Your task to perform on an android device: toggle notifications settings in the gmail app Image 0: 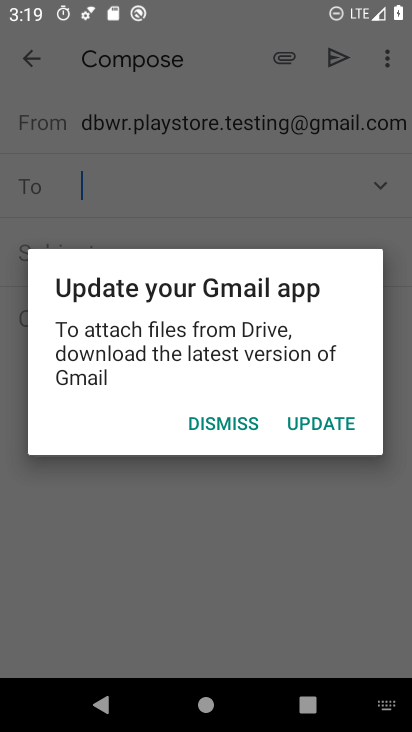
Step 0: press home button
Your task to perform on an android device: toggle notifications settings in the gmail app Image 1: 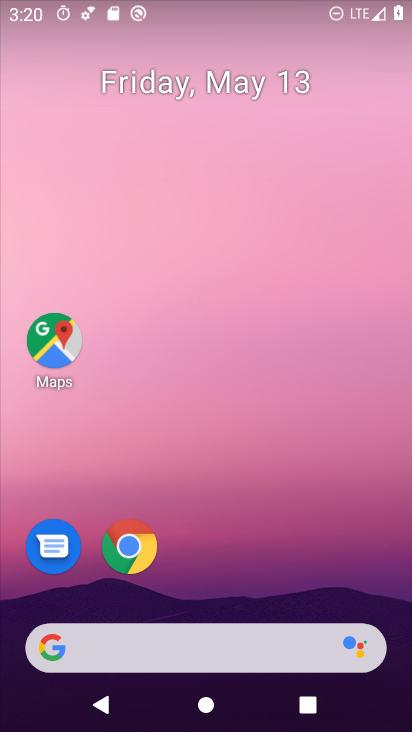
Step 1: drag from (187, 550) to (216, 179)
Your task to perform on an android device: toggle notifications settings in the gmail app Image 2: 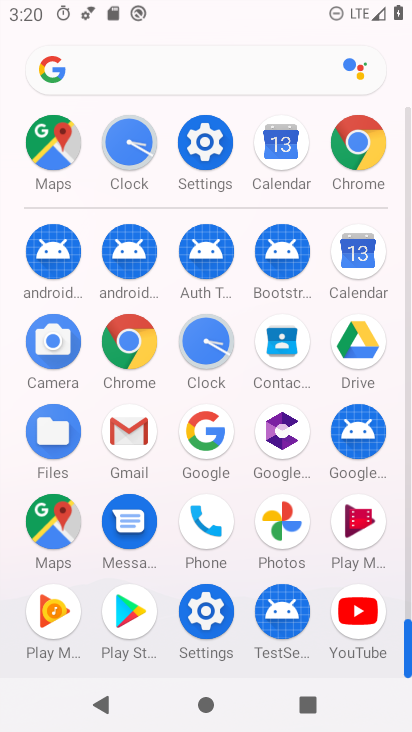
Step 2: click (131, 442)
Your task to perform on an android device: toggle notifications settings in the gmail app Image 3: 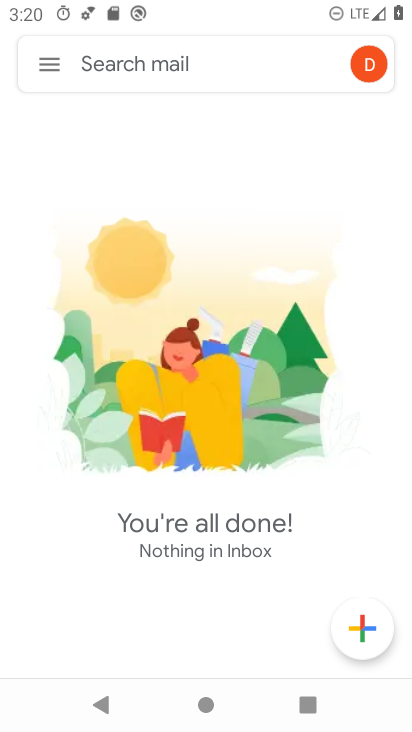
Step 3: click (53, 65)
Your task to perform on an android device: toggle notifications settings in the gmail app Image 4: 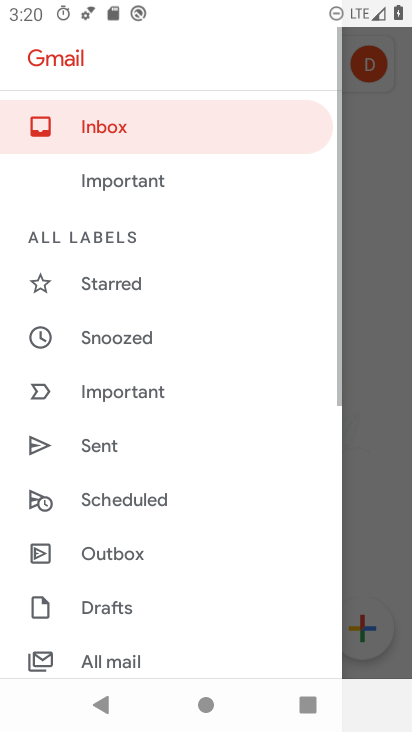
Step 4: drag from (110, 549) to (166, 190)
Your task to perform on an android device: toggle notifications settings in the gmail app Image 5: 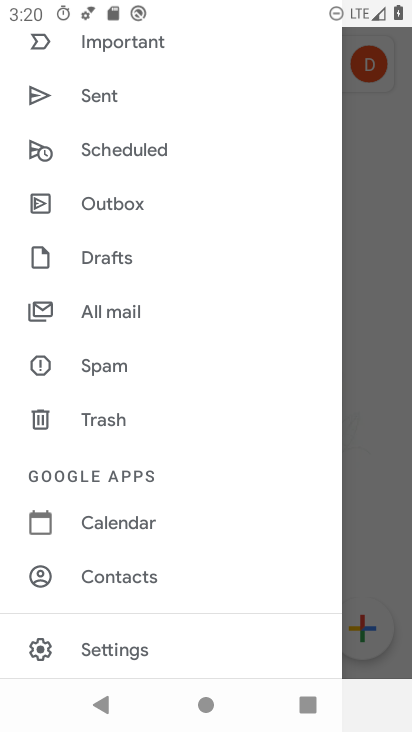
Step 5: click (138, 653)
Your task to perform on an android device: toggle notifications settings in the gmail app Image 6: 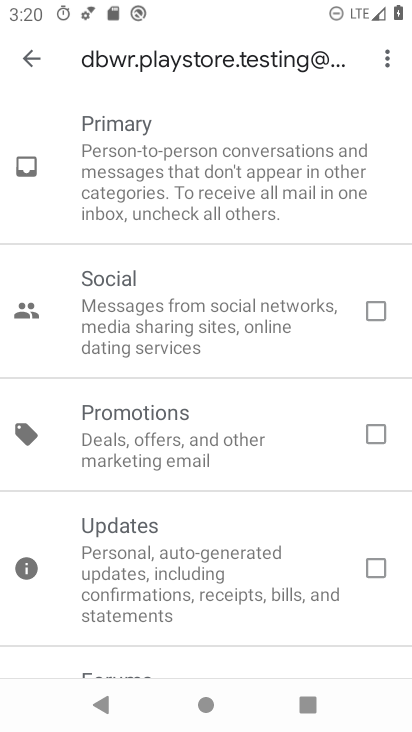
Step 6: click (37, 63)
Your task to perform on an android device: toggle notifications settings in the gmail app Image 7: 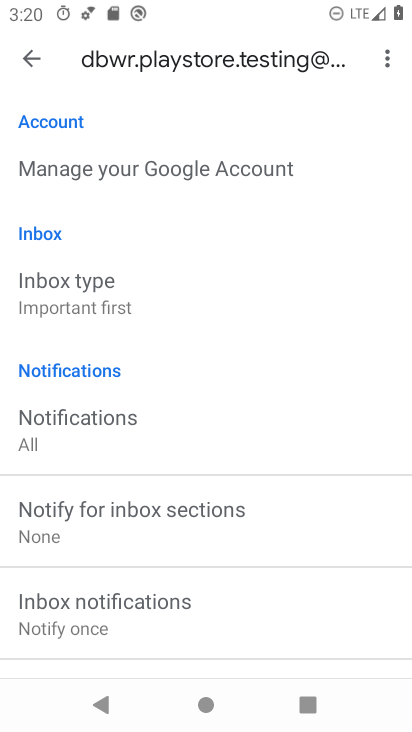
Step 7: click (30, 49)
Your task to perform on an android device: toggle notifications settings in the gmail app Image 8: 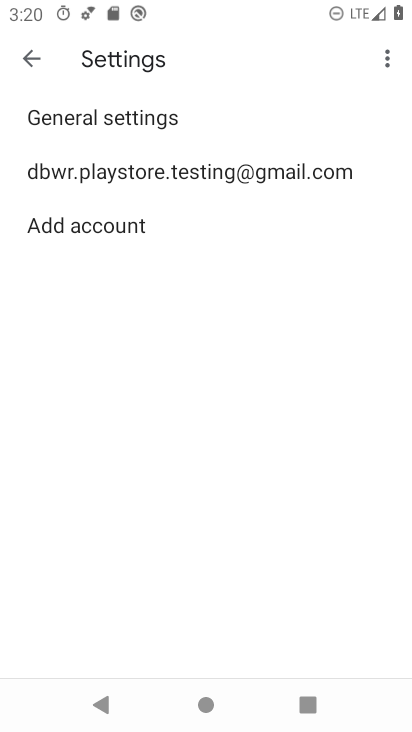
Step 8: click (131, 127)
Your task to perform on an android device: toggle notifications settings in the gmail app Image 9: 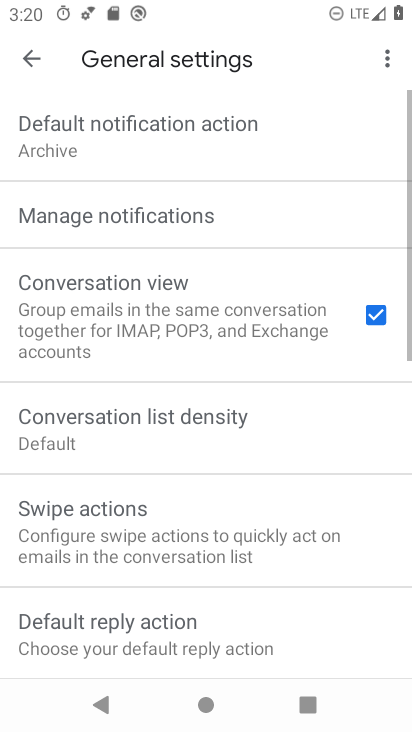
Step 9: click (139, 235)
Your task to perform on an android device: toggle notifications settings in the gmail app Image 10: 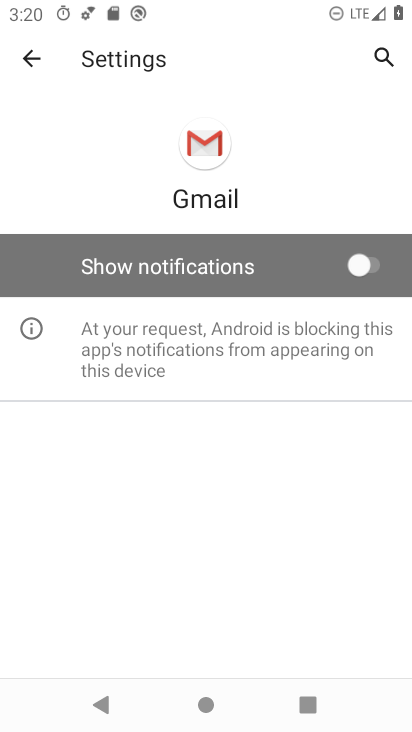
Step 10: click (321, 261)
Your task to perform on an android device: toggle notifications settings in the gmail app Image 11: 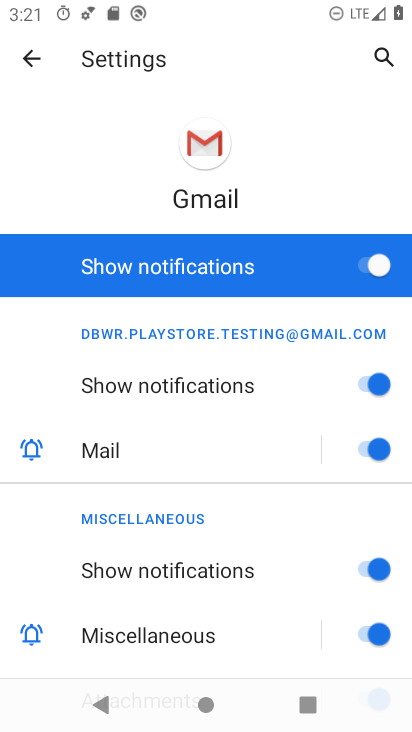
Step 11: click (365, 276)
Your task to perform on an android device: toggle notifications settings in the gmail app Image 12: 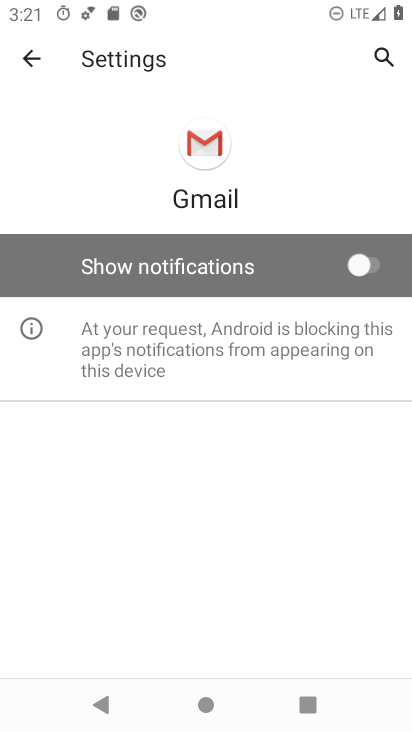
Step 12: task complete